Your task to perform on an android device: Search for pizza restaurants on Maps Image 0: 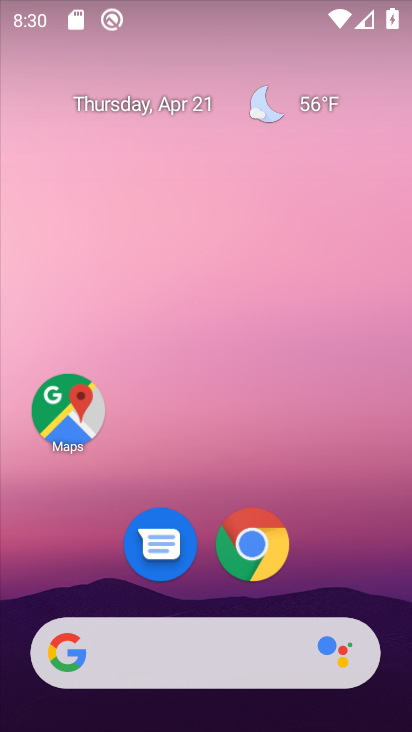
Step 0: drag from (218, 723) to (203, 128)
Your task to perform on an android device: Search for pizza restaurants on Maps Image 1: 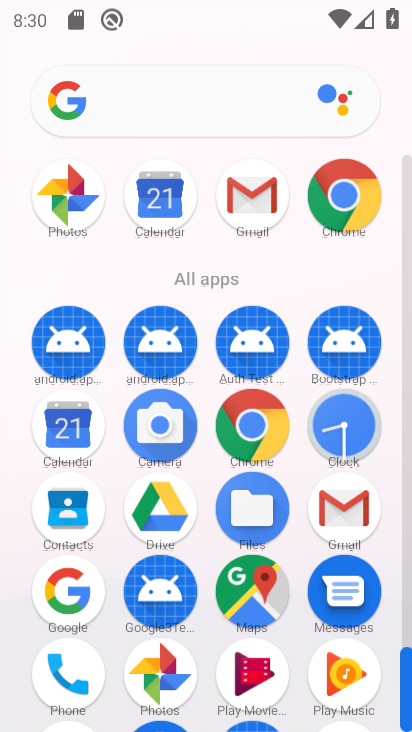
Step 1: click (251, 591)
Your task to perform on an android device: Search for pizza restaurants on Maps Image 2: 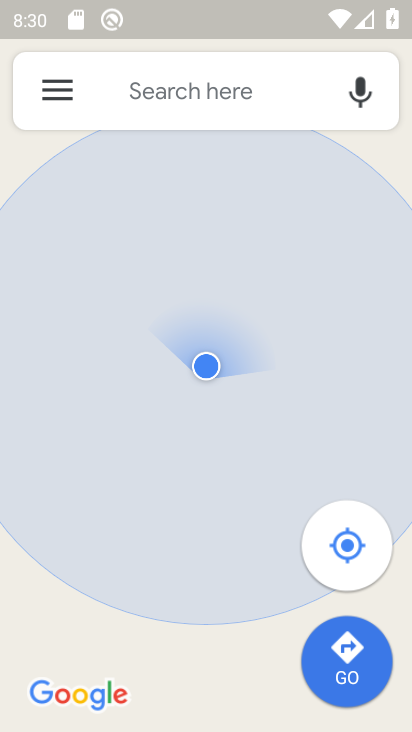
Step 2: click (204, 91)
Your task to perform on an android device: Search for pizza restaurants on Maps Image 3: 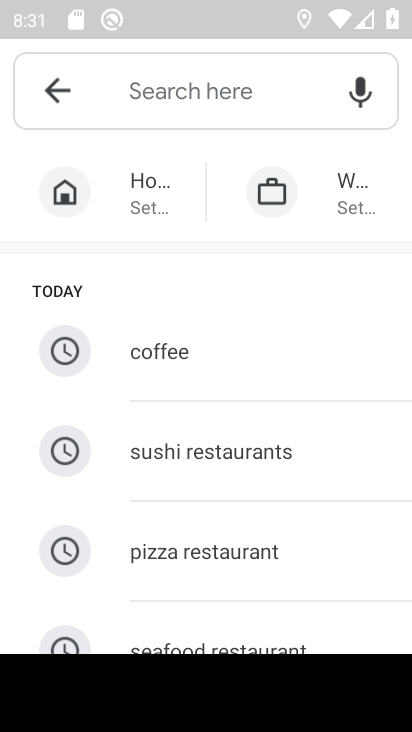
Step 3: type "Pizza restaurants"
Your task to perform on an android device: Search for pizza restaurants on Maps Image 4: 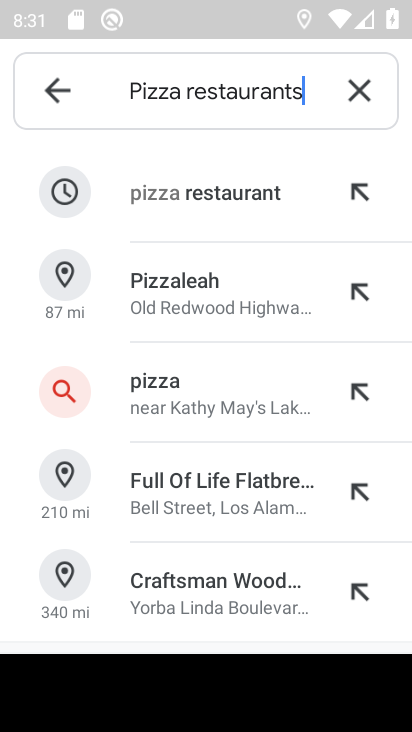
Step 4: click (168, 192)
Your task to perform on an android device: Search for pizza restaurants on Maps Image 5: 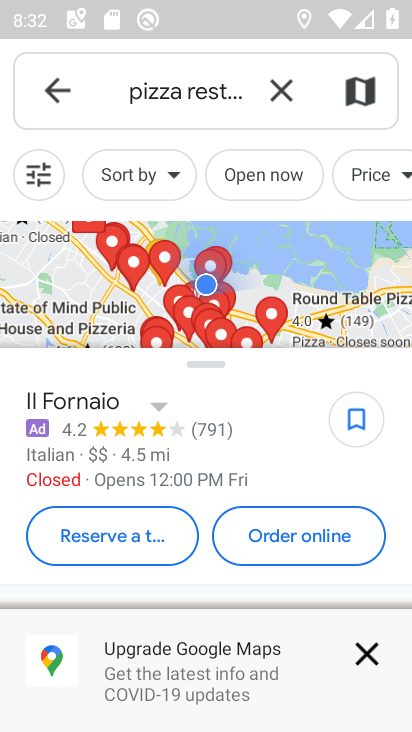
Step 5: task complete